Your task to perform on an android device: Go to Maps Image 0: 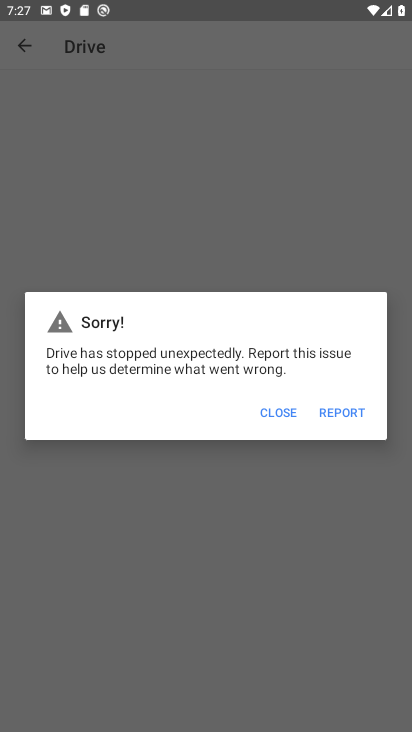
Step 0: press home button
Your task to perform on an android device: Go to Maps Image 1: 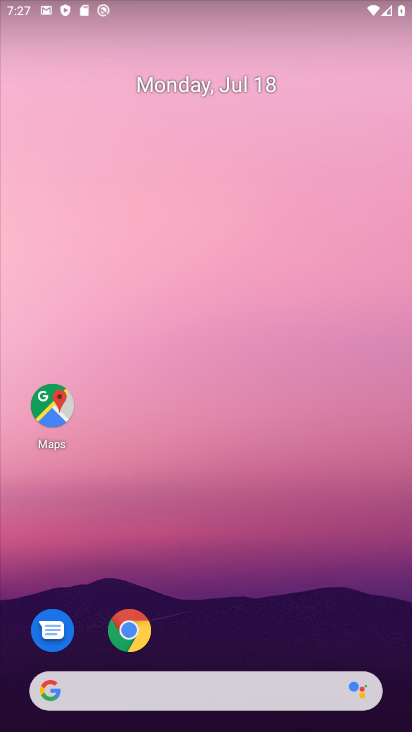
Step 1: click (45, 396)
Your task to perform on an android device: Go to Maps Image 2: 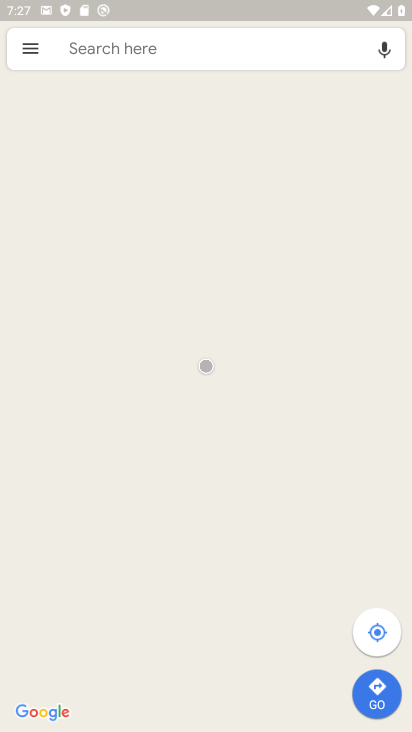
Step 2: click (26, 55)
Your task to perform on an android device: Go to Maps Image 3: 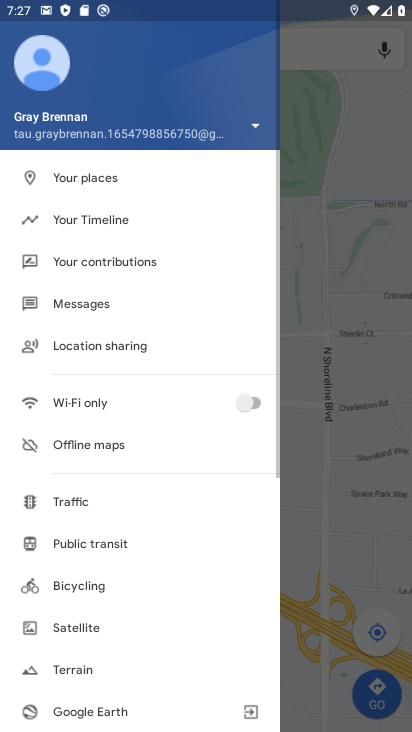
Step 3: click (371, 624)
Your task to perform on an android device: Go to Maps Image 4: 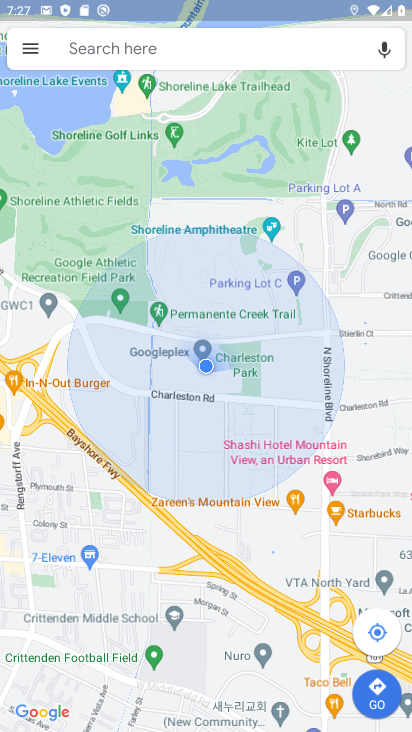
Step 4: click (372, 629)
Your task to perform on an android device: Go to Maps Image 5: 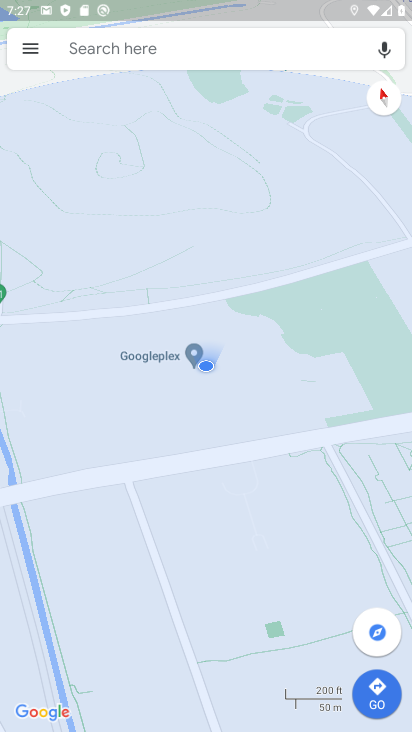
Step 5: task complete